Your task to perform on an android device: turn vacation reply on in the gmail app Image 0: 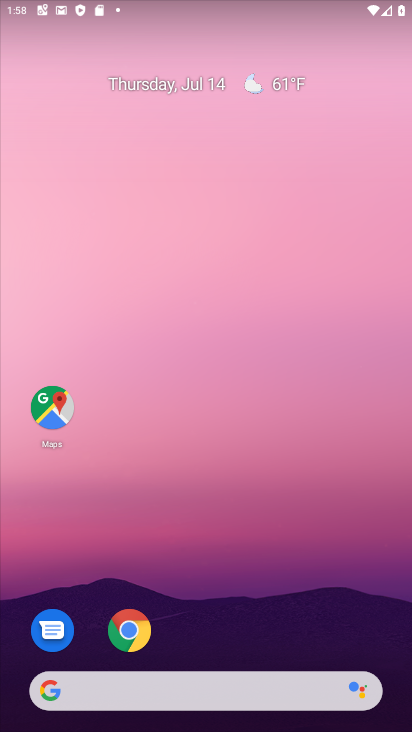
Step 0: drag from (172, 686) to (322, 157)
Your task to perform on an android device: turn vacation reply on in the gmail app Image 1: 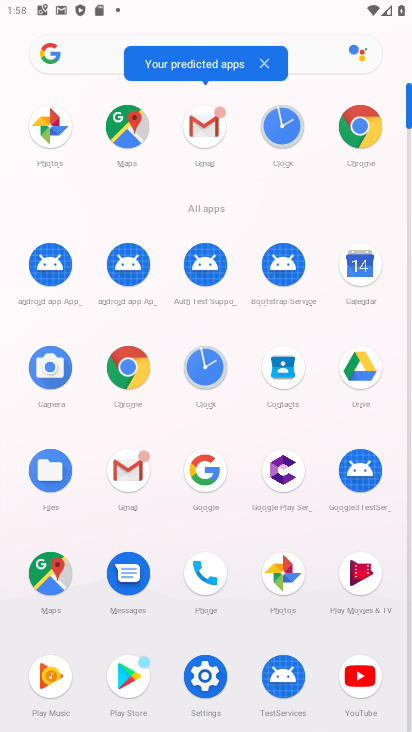
Step 1: click (199, 127)
Your task to perform on an android device: turn vacation reply on in the gmail app Image 2: 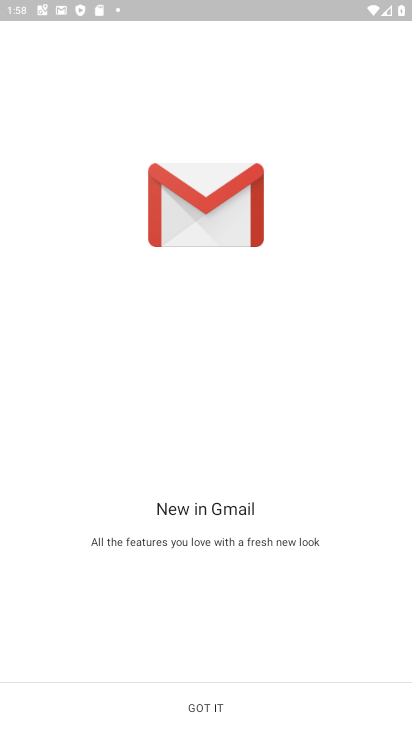
Step 2: click (236, 708)
Your task to perform on an android device: turn vacation reply on in the gmail app Image 3: 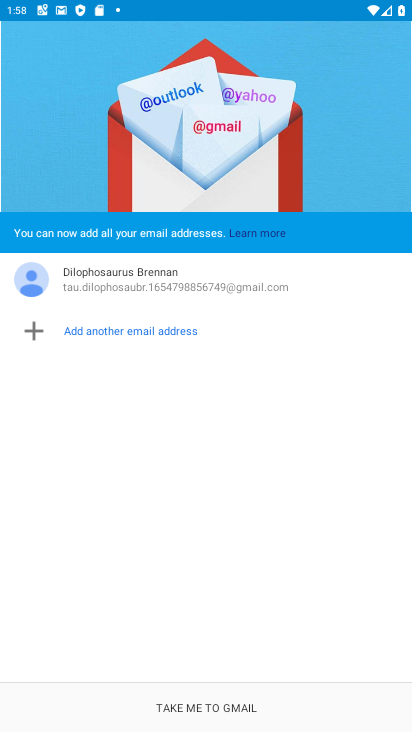
Step 3: click (236, 708)
Your task to perform on an android device: turn vacation reply on in the gmail app Image 4: 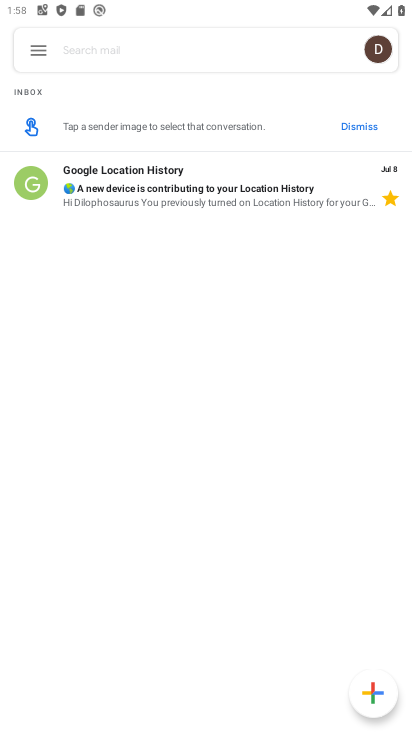
Step 4: click (43, 45)
Your task to perform on an android device: turn vacation reply on in the gmail app Image 5: 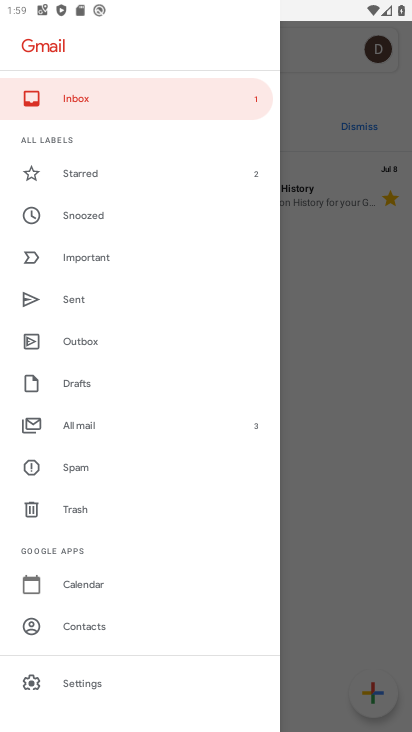
Step 5: click (94, 679)
Your task to perform on an android device: turn vacation reply on in the gmail app Image 6: 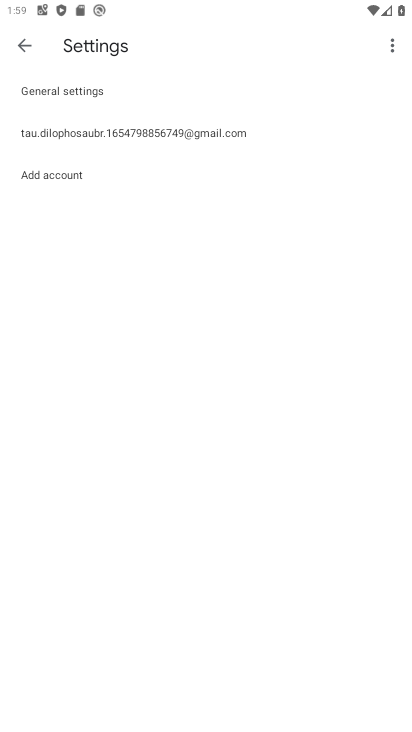
Step 6: click (180, 127)
Your task to perform on an android device: turn vacation reply on in the gmail app Image 7: 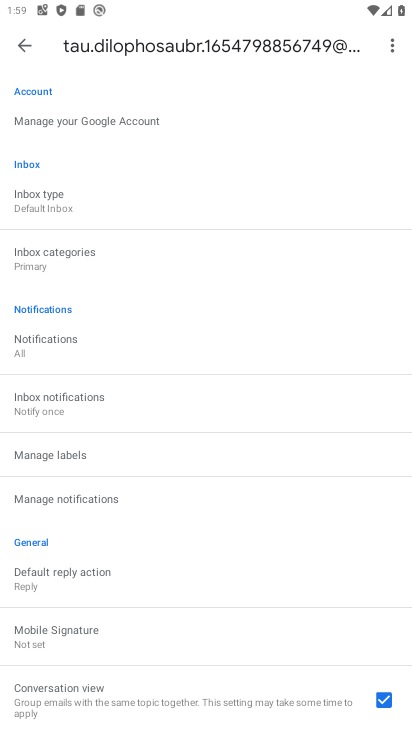
Step 7: drag from (217, 649) to (385, 166)
Your task to perform on an android device: turn vacation reply on in the gmail app Image 8: 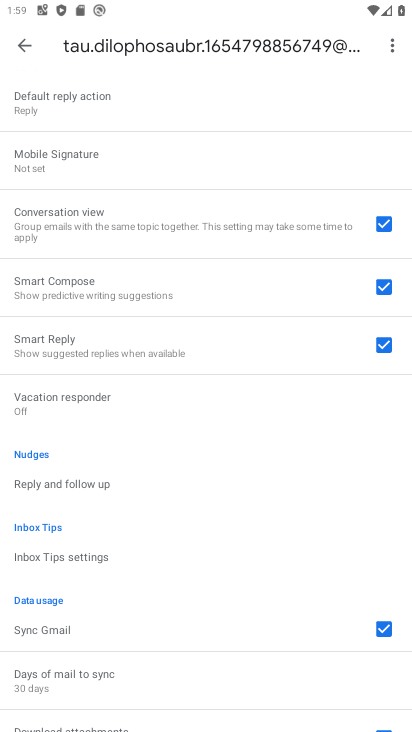
Step 8: click (111, 405)
Your task to perform on an android device: turn vacation reply on in the gmail app Image 9: 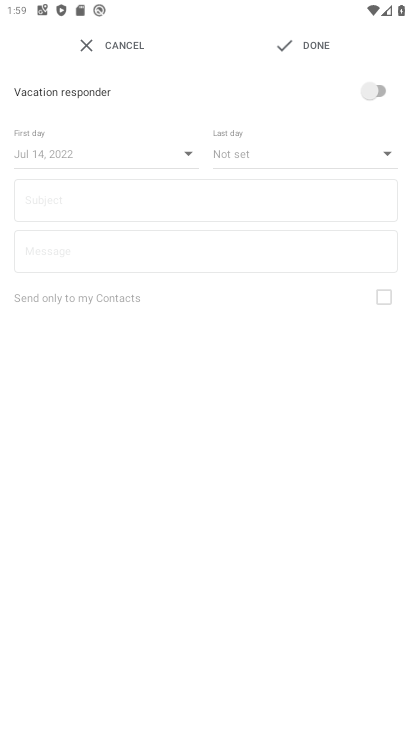
Step 9: click (381, 85)
Your task to perform on an android device: turn vacation reply on in the gmail app Image 10: 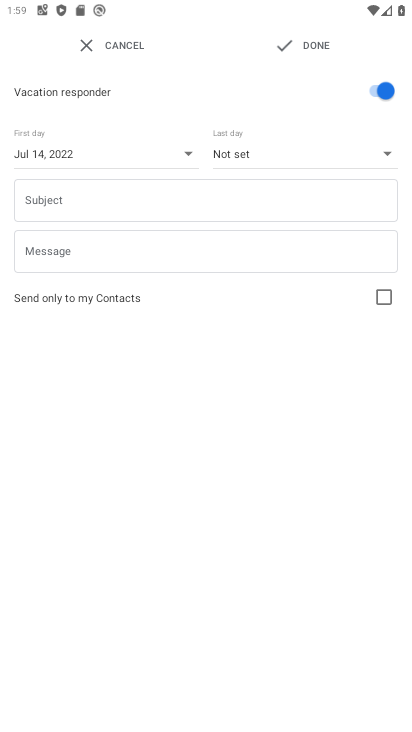
Step 10: task complete